Your task to perform on an android device: Open privacy settings Image 0: 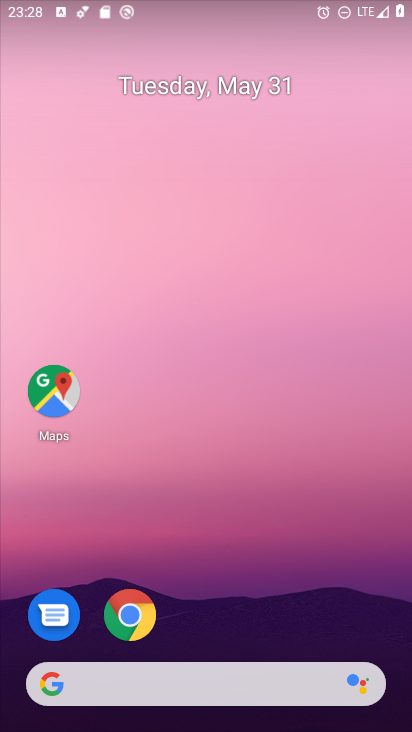
Step 0: drag from (390, 635) to (345, 43)
Your task to perform on an android device: Open privacy settings Image 1: 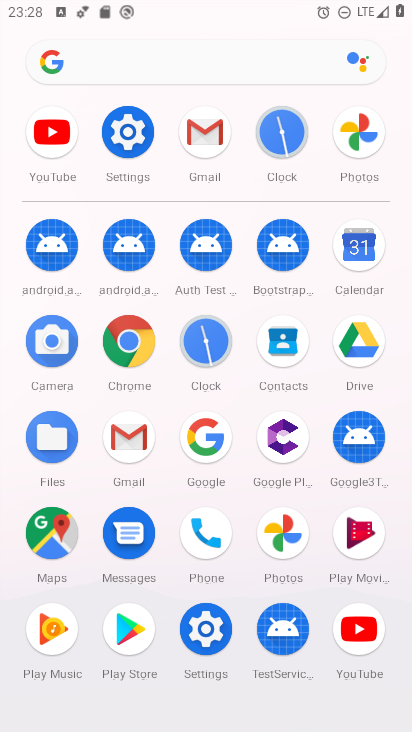
Step 1: click (209, 630)
Your task to perform on an android device: Open privacy settings Image 2: 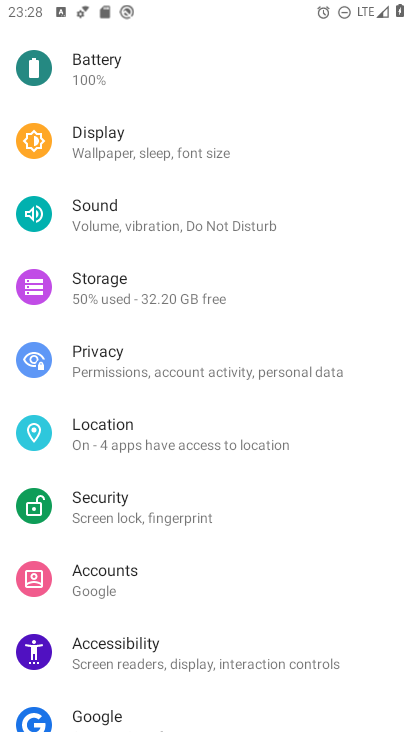
Step 2: click (107, 362)
Your task to perform on an android device: Open privacy settings Image 3: 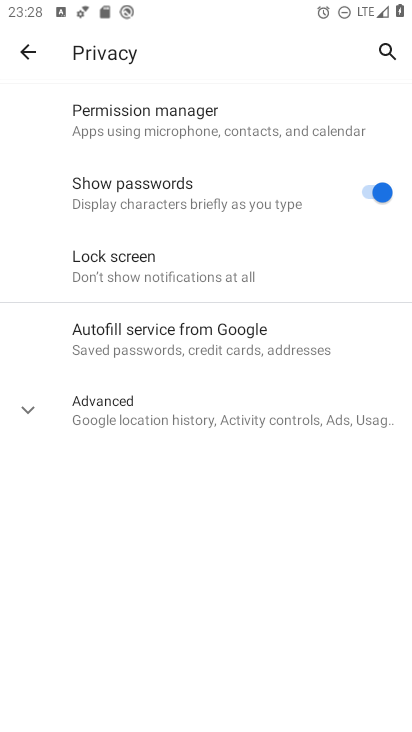
Step 3: click (29, 405)
Your task to perform on an android device: Open privacy settings Image 4: 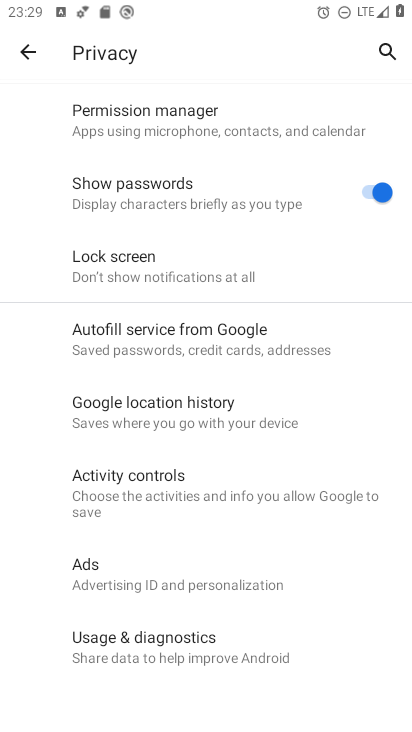
Step 4: task complete